Your task to perform on an android device: open chrome and create a bookmark for the current page Image 0: 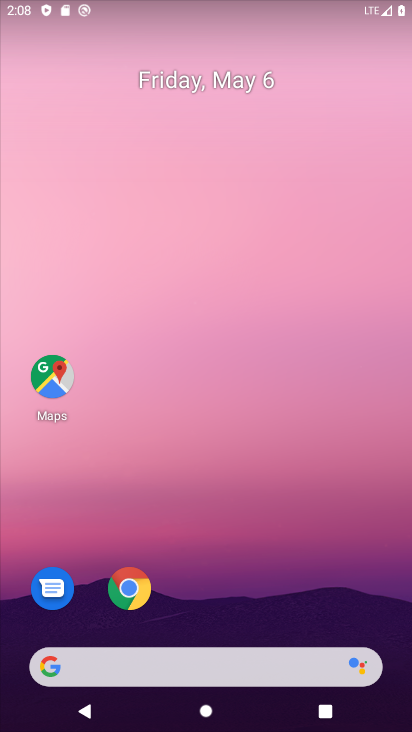
Step 0: drag from (333, 609) to (287, 211)
Your task to perform on an android device: open chrome and create a bookmark for the current page Image 1: 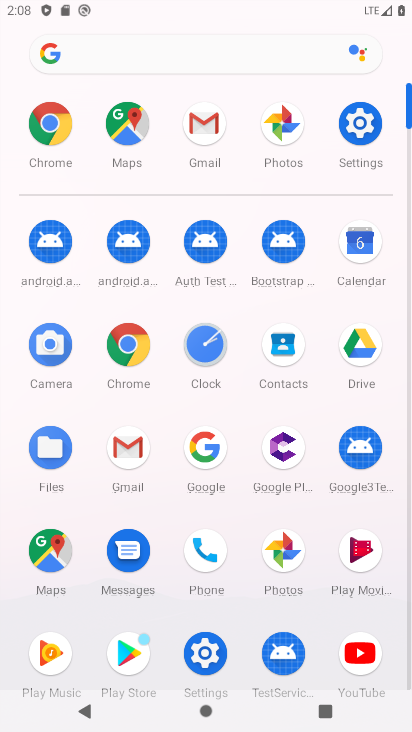
Step 1: click (135, 358)
Your task to perform on an android device: open chrome and create a bookmark for the current page Image 2: 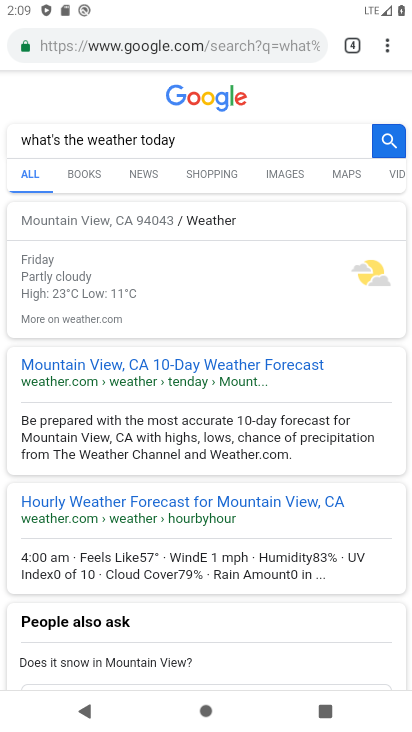
Step 2: click (390, 49)
Your task to perform on an android device: open chrome and create a bookmark for the current page Image 3: 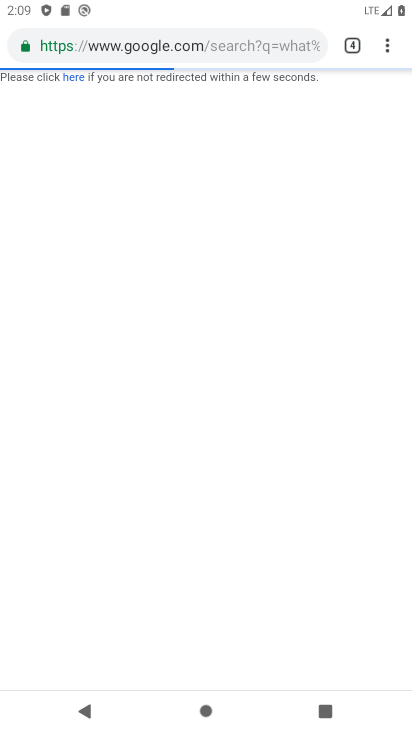
Step 3: task complete